Your task to perform on an android device: Search for the best rated 150-piece drill bit set on Aliexpress. Image 0: 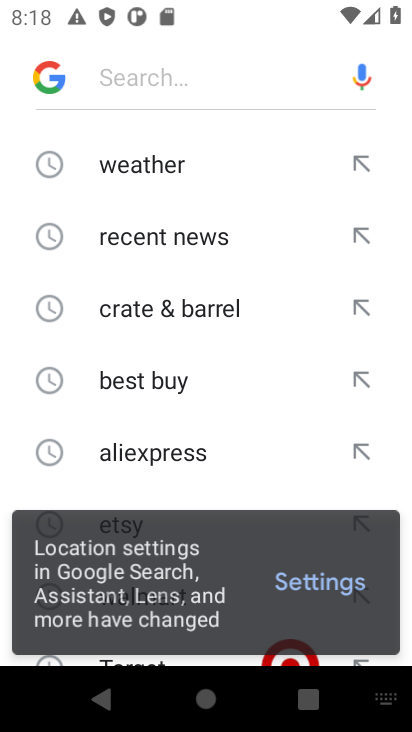
Step 0: press home button
Your task to perform on an android device: Search for the best rated 150-piece drill bit set on Aliexpress. Image 1: 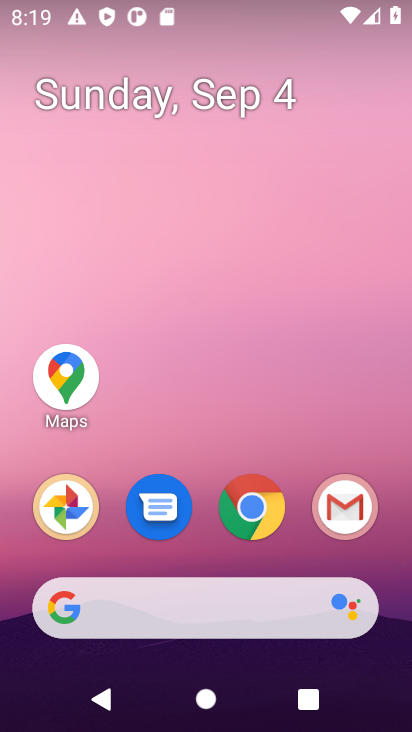
Step 1: click (257, 524)
Your task to perform on an android device: Search for the best rated 150-piece drill bit set on Aliexpress. Image 2: 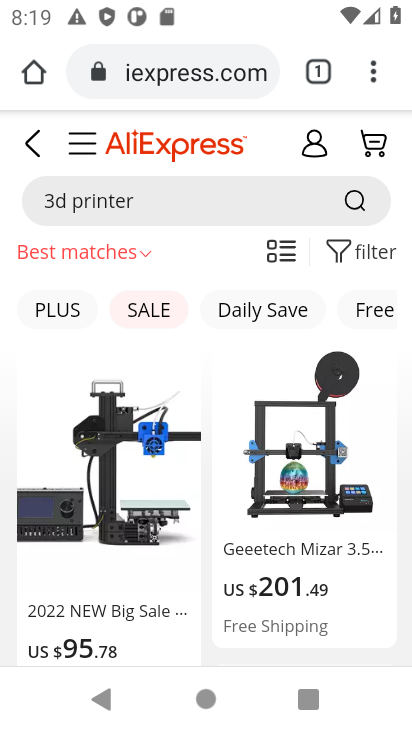
Step 2: click (188, 213)
Your task to perform on an android device: Search for the best rated 150-piece drill bit set on Aliexpress. Image 3: 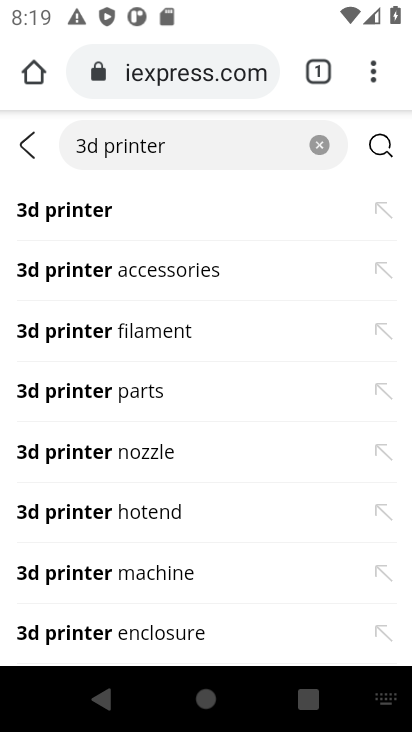
Step 3: click (320, 148)
Your task to perform on an android device: Search for the best rated 150-piece drill bit set on Aliexpress. Image 4: 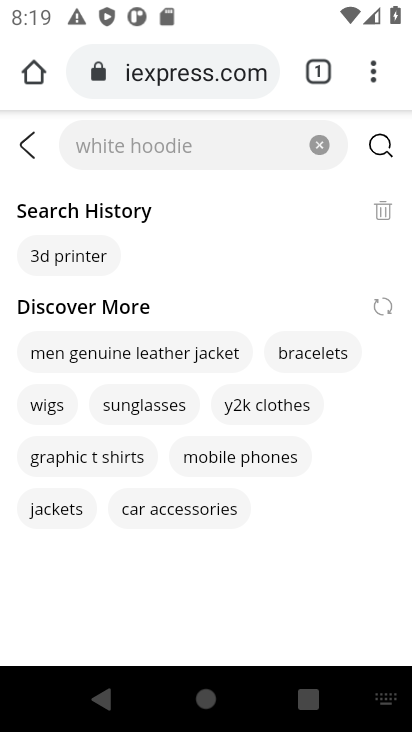
Step 4: type "best rated 150-piece drill bit set"
Your task to perform on an android device: Search for the best rated 150-piece drill bit set on Aliexpress. Image 5: 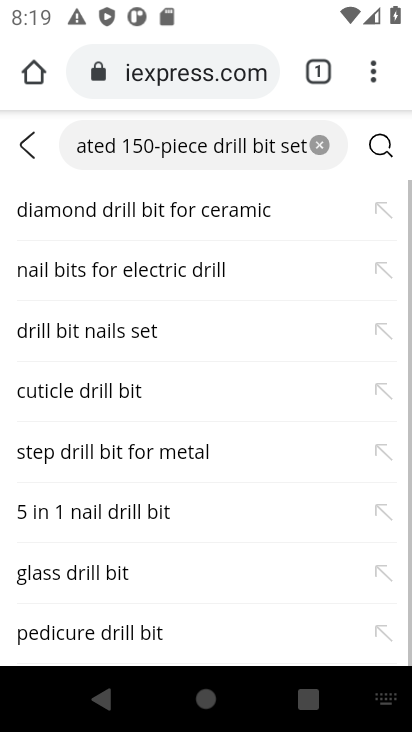
Step 5: press enter
Your task to perform on an android device: Search for the best rated 150-piece drill bit set on Aliexpress. Image 6: 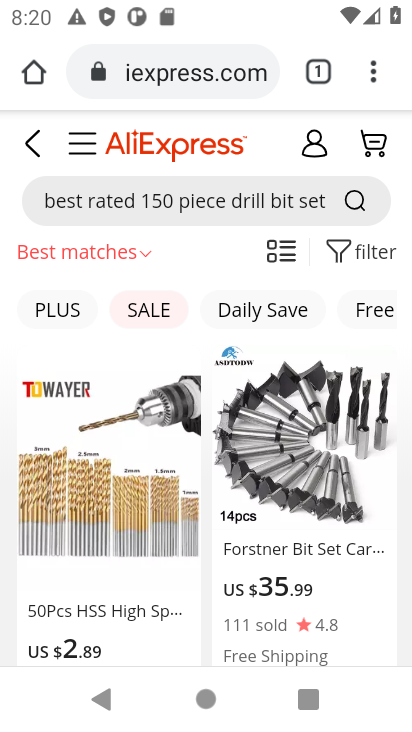
Step 6: task complete